Your task to perform on an android device: change keyboard looks Image 0: 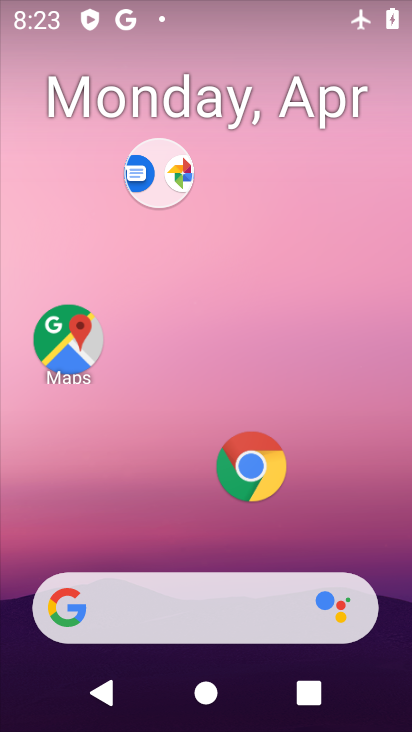
Step 0: drag from (203, 431) to (336, 100)
Your task to perform on an android device: change keyboard looks Image 1: 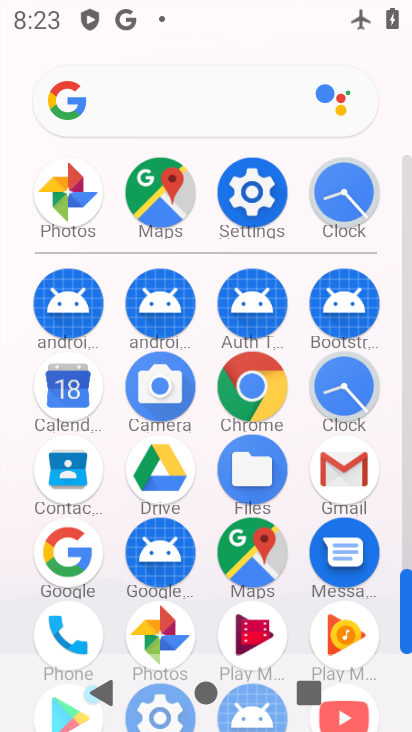
Step 1: click (278, 194)
Your task to perform on an android device: change keyboard looks Image 2: 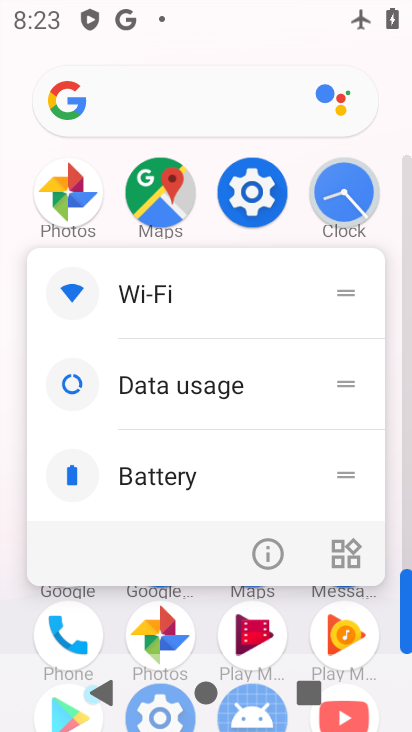
Step 2: click (260, 542)
Your task to perform on an android device: change keyboard looks Image 3: 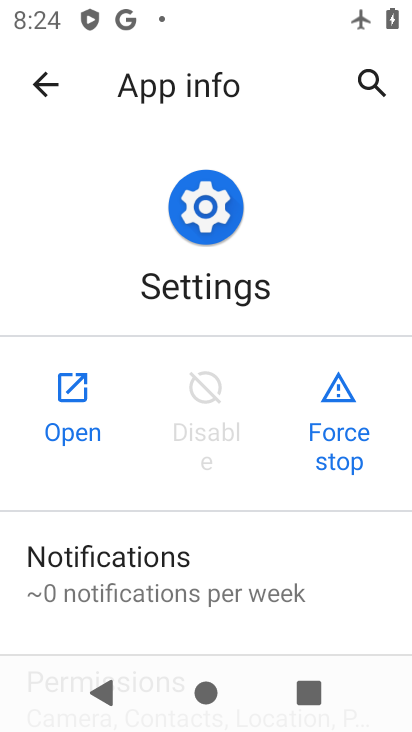
Step 3: click (77, 395)
Your task to perform on an android device: change keyboard looks Image 4: 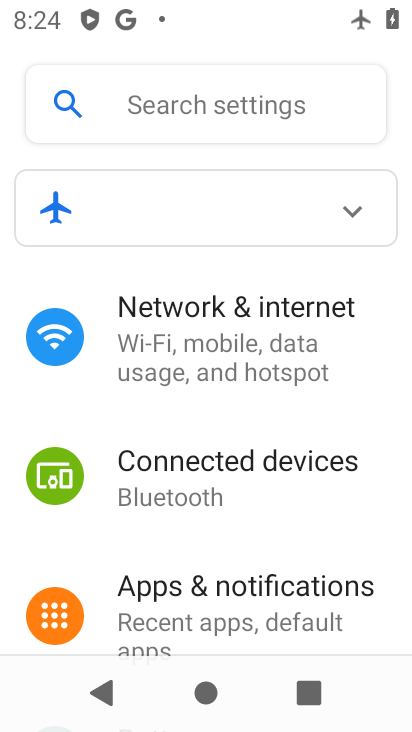
Step 4: drag from (187, 510) to (317, 189)
Your task to perform on an android device: change keyboard looks Image 5: 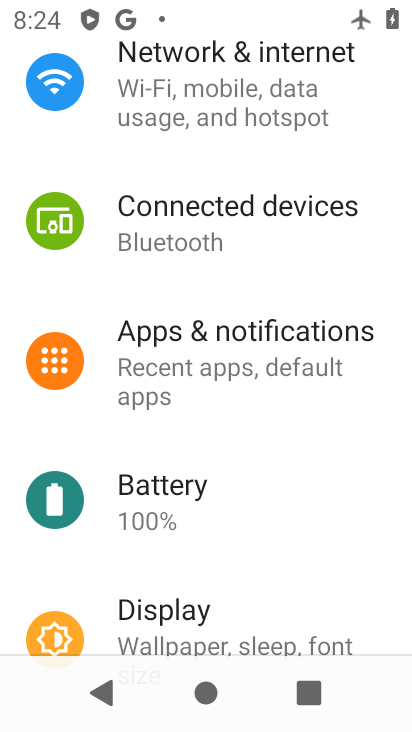
Step 5: drag from (267, 574) to (306, 245)
Your task to perform on an android device: change keyboard looks Image 6: 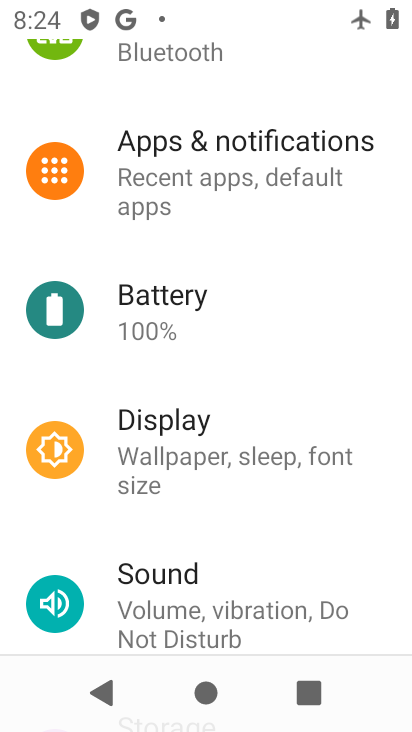
Step 6: drag from (221, 502) to (392, 1)
Your task to perform on an android device: change keyboard looks Image 7: 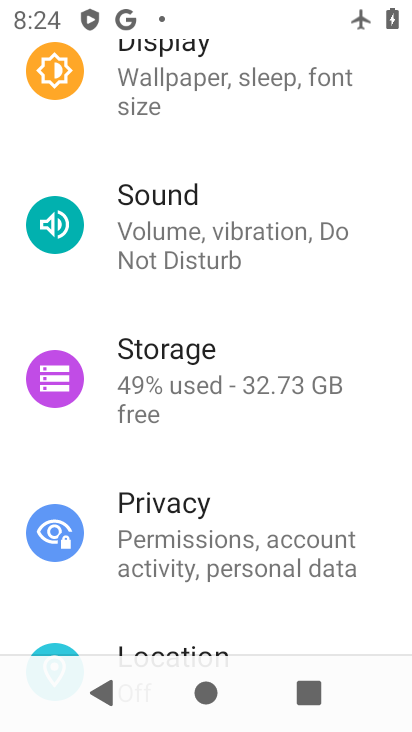
Step 7: drag from (230, 524) to (329, 135)
Your task to perform on an android device: change keyboard looks Image 8: 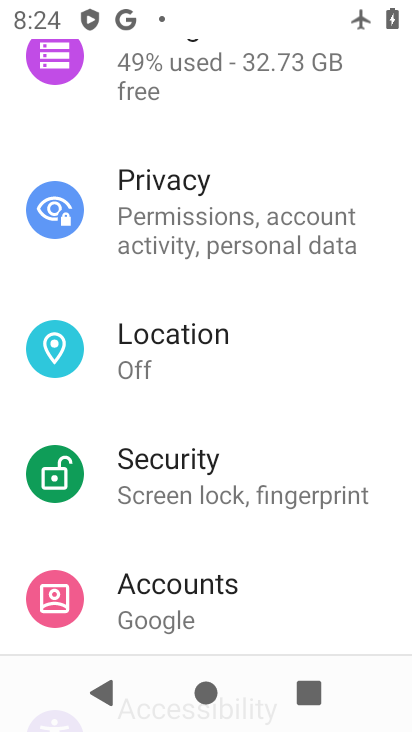
Step 8: click (361, 66)
Your task to perform on an android device: change keyboard looks Image 9: 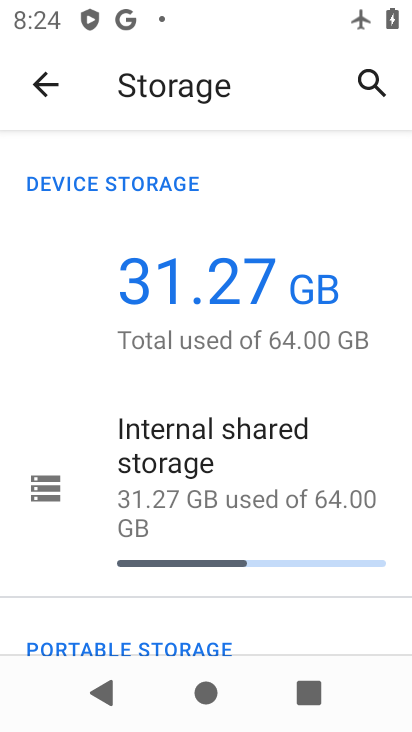
Step 9: click (59, 111)
Your task to perform on an android device: change keyboard looks Image 10: 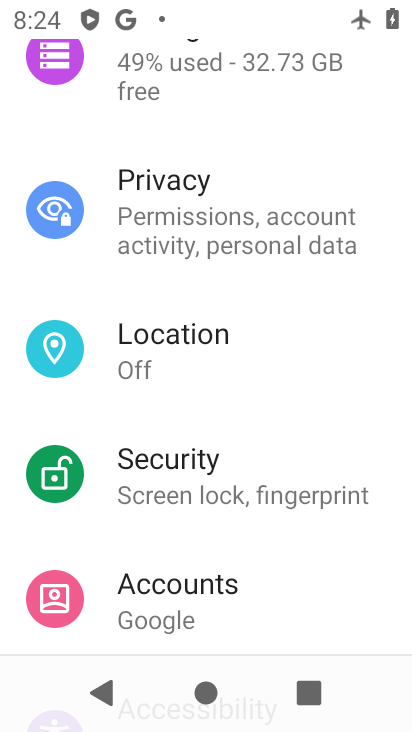
Step 10: drag from (208, 535) to (394, 167)
Your task to perform on an android device: change keyboard looks Image 11: 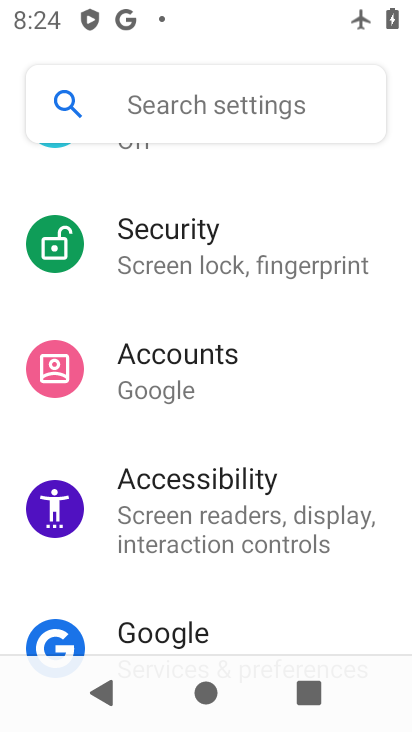
Step 11: drag from (220, 528) to (334, 53)
Your task to perform on an android device: change keyboard looks Image 12: 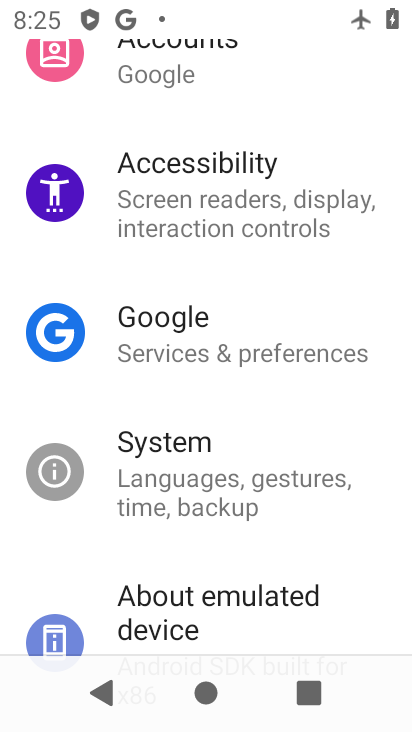
Step 12: click (193, 481)
Your task to perform on an android device: change keyboard looks Image 13: 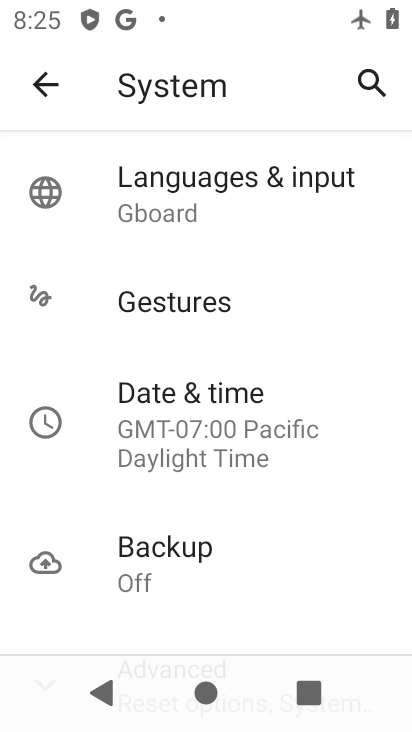
Step 13: click (242, 184)
Your task to perform on an android device: change keyboard looks Image 14: 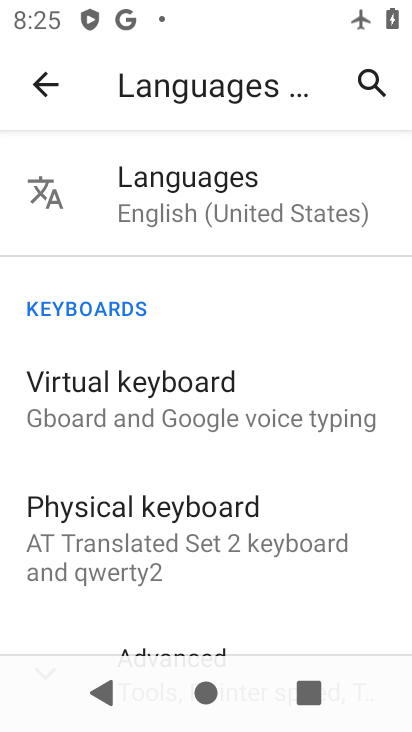
Step 14: click (210, 417)
Your task to perform on an android device: change keyboard looks Image 15: 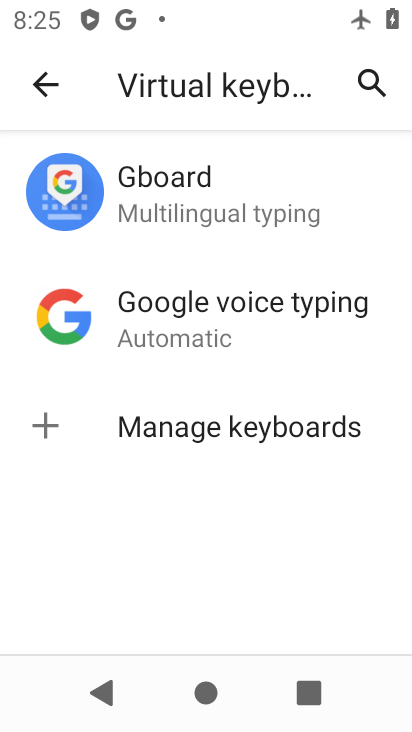
Step 15: click (174, 192)
Your task to perform on an android device: change keyboard looks Image 16: 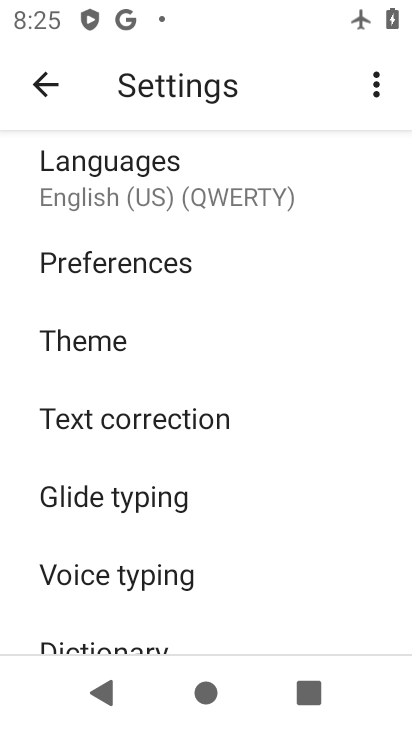
Step 16: click (134, 340)
Your task to perform on an android device: change keyboard looks Image 17: 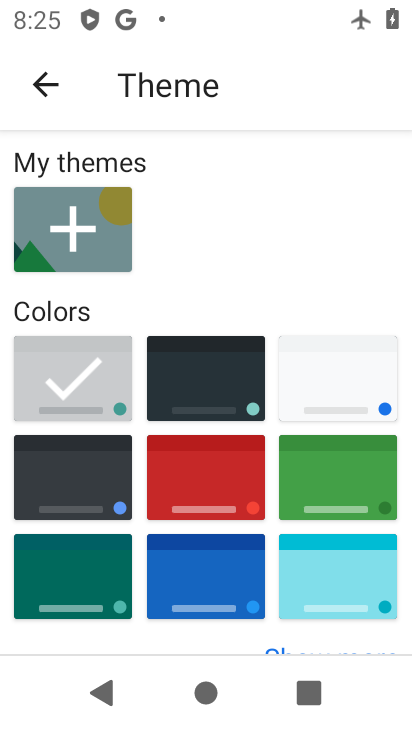
Step 17: click (222, 393)
Your task to perform on an android device: change keyboard looks Image 18: 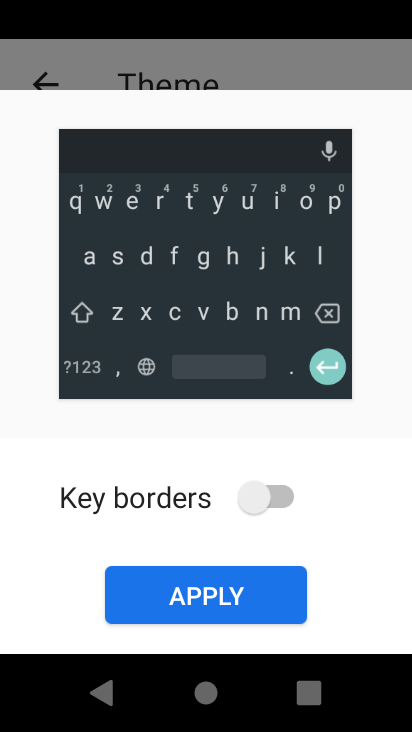
Step 18: task complete